Your task to perform on an android device: Go to Maps Image 0: 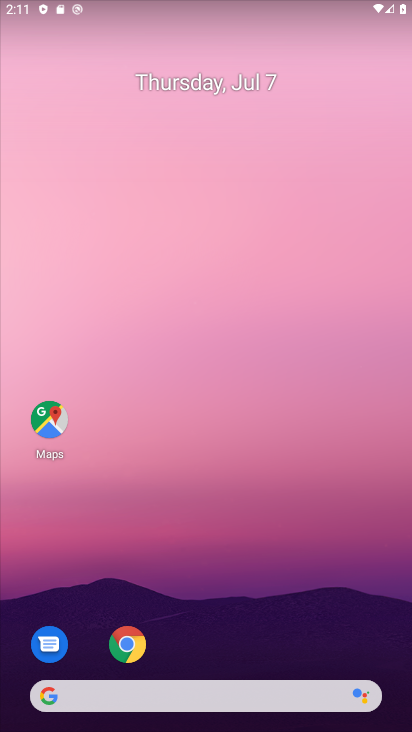
Step 0: click (42, 409)
Your task to perform on an android device: Go to Maps Image 1: 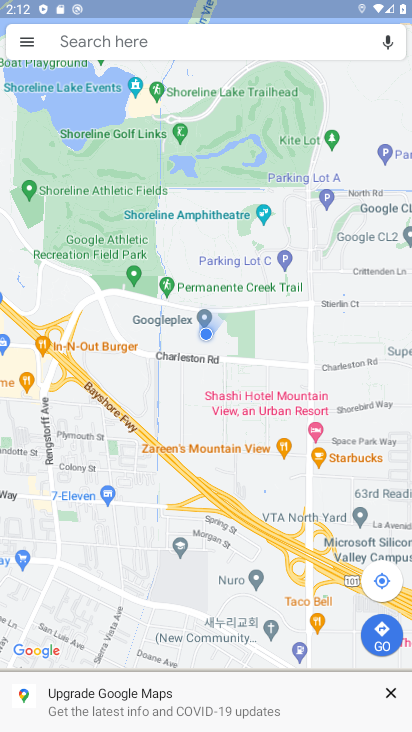
Step 1: task complete